Your task to perform on an android device: change notifications settings Image 0: 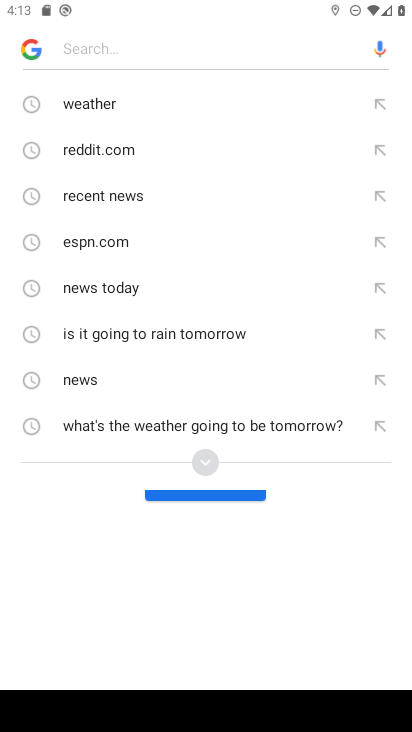
Step 0: press home button
Your task to perform on an android device: change notifications settings Image 1: 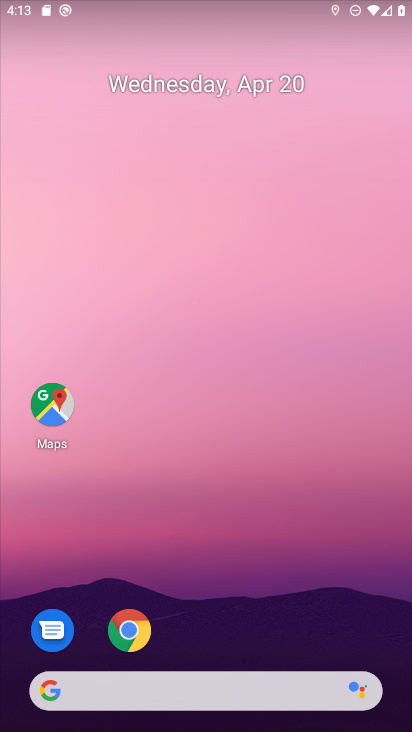
Step 1: drag from (211, 507) to (240, 83)
Your task to perform on an android device: change notifications settings Image 2: 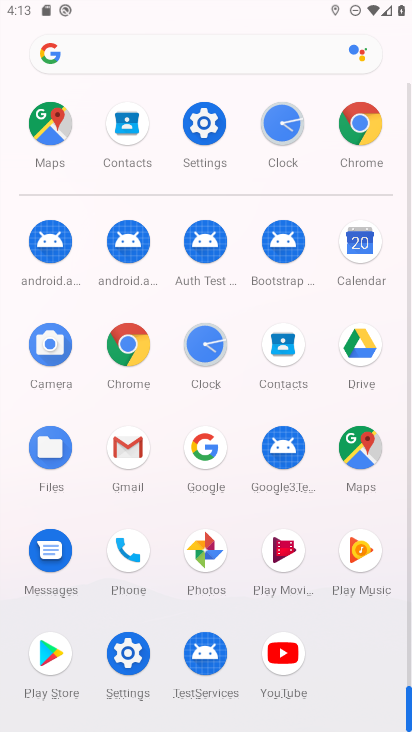
Step 2: click (133, 652)
Your task to perform on an android device: change notifications settings Image 3: 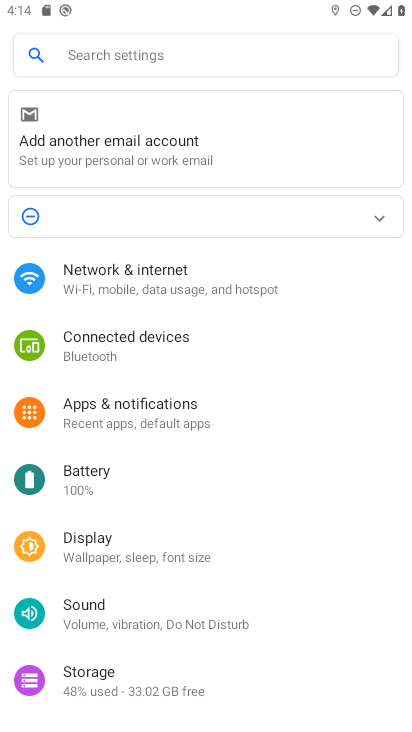
Step 3: click (137, 419)
Your task to perform on an android device: change notifications settings Image 4: 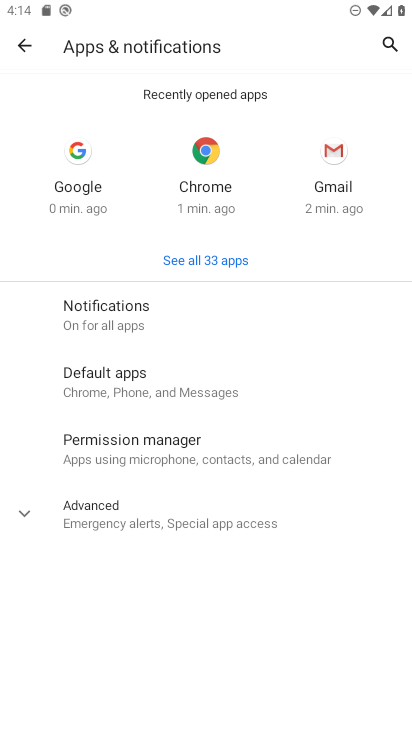
Step 4: click (163, 318)
Your task to perform on an android device: change notifications settings Image 5: 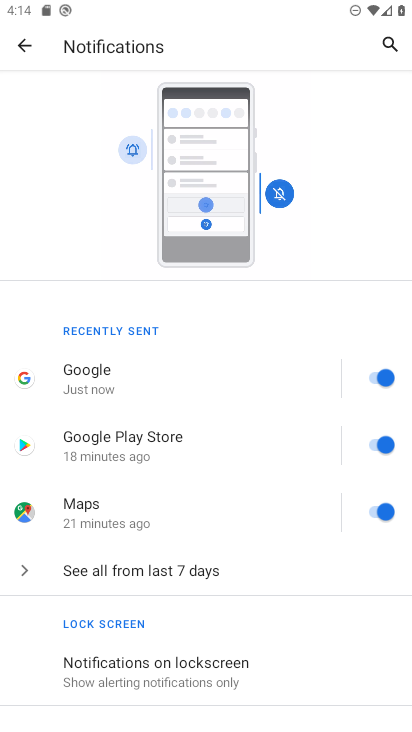
Step 5: click (135, 151)
Your task to perform on an android device: change notifications settings Image 6: 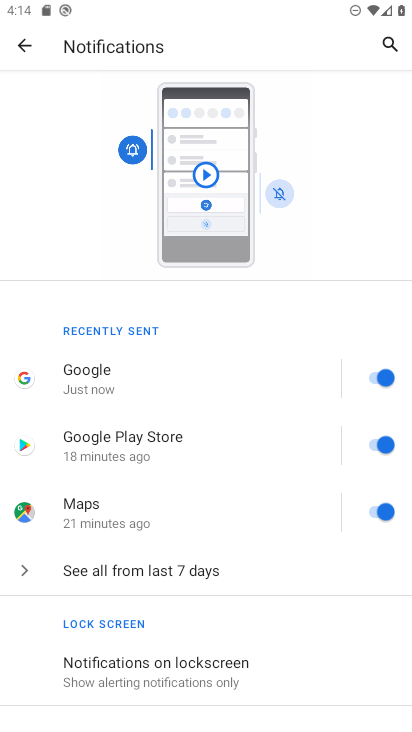
Step 6: task complete